Your task to perform on an android device: turn off location Image 0: 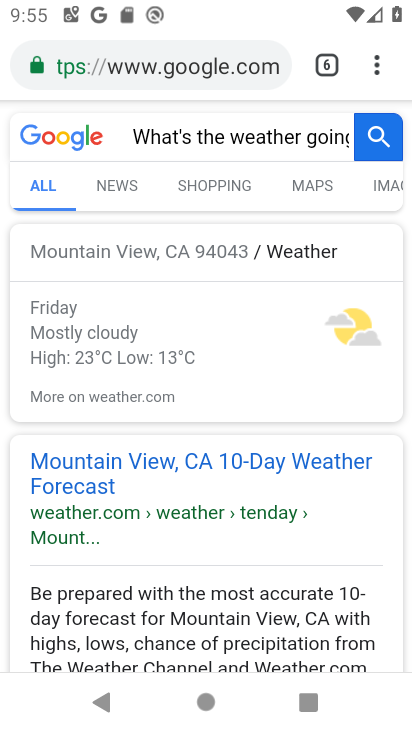
Step 0: press home button
Your task to perform on an android device: turn off location Image 1: 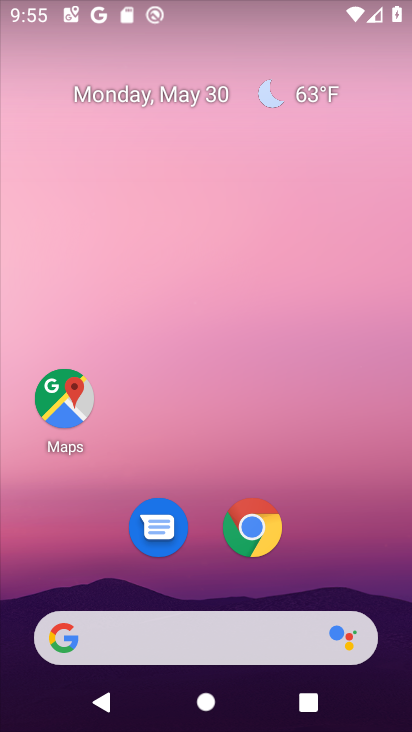
Step 1: drag from (332, 565) to (345, 300)
Your task to perform on an android device: turn off location Image 2: 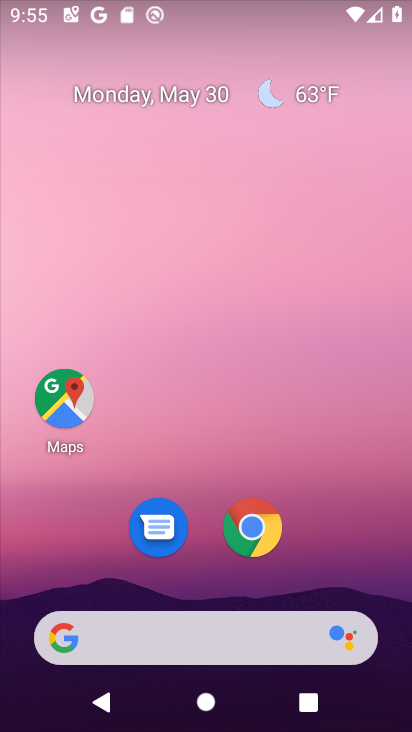
Step 2: drag from (232, 589) to (190, 287)
Your task to perform on an android device: turn off location Image 3: 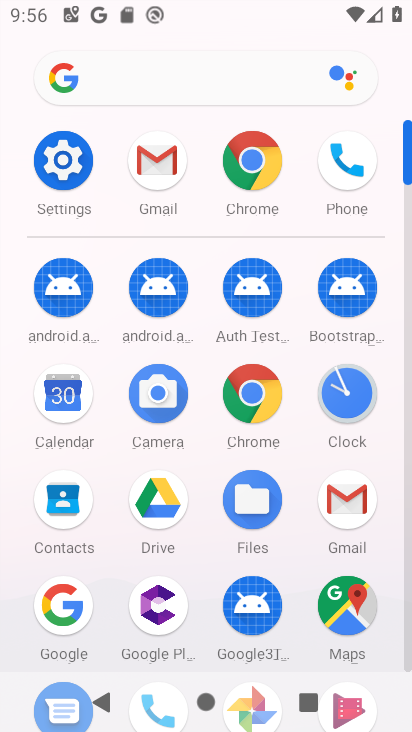
Step 3: click (73, 154)
Your task to perform on an android device: turn off location Image 4: 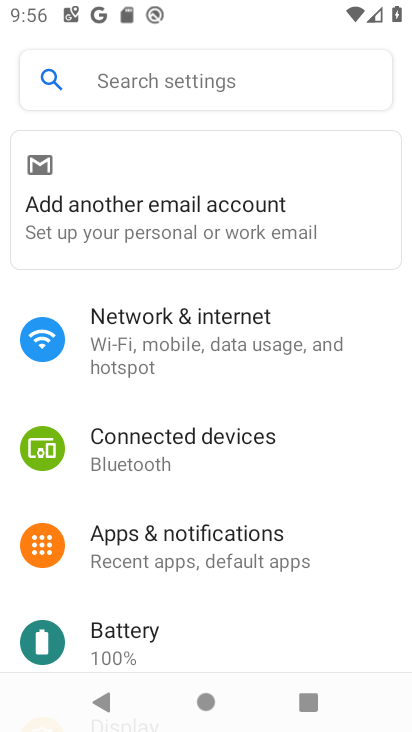
Step 4: drag from (173, 607) to (240, 312)
Your task to perform on an android device: turn off location Image 5: 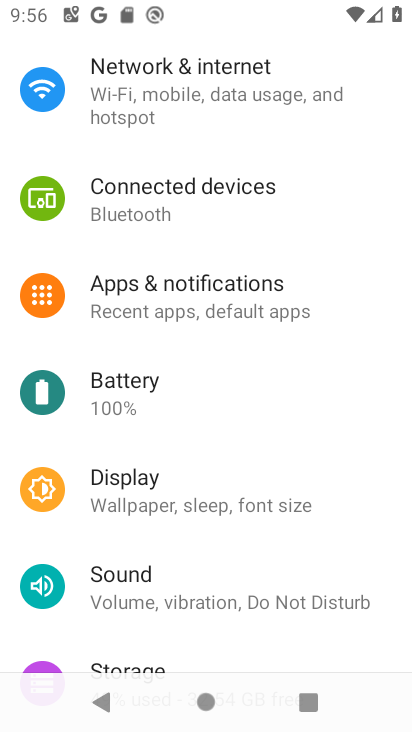
Step 5: drag from (187, 578) to (250, 249)
Your task to perform on an android device: turn off location Image 6: 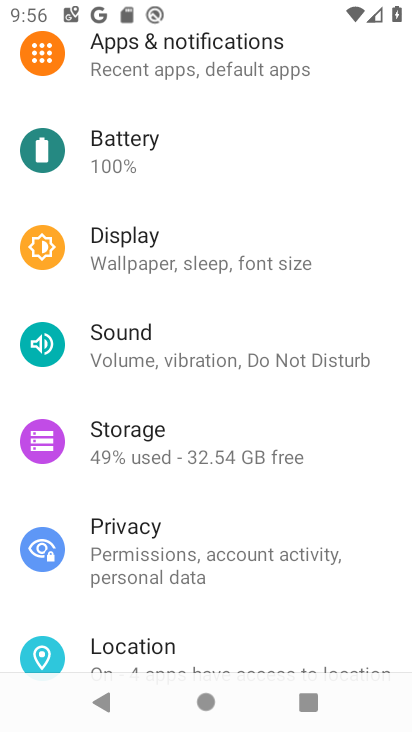
Step 6: drag from (176, 545) to (178, 285)
Your task to perform on an android device: turn off location Image 7: 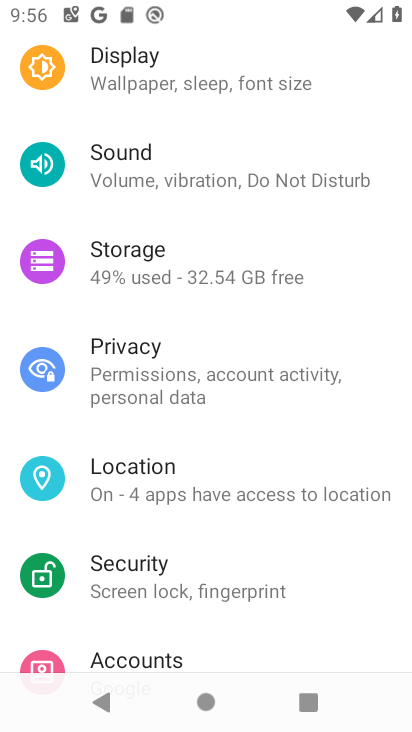
Step 7: click (154, 471)
Your task to perform on an android device: turn off location Image 8: 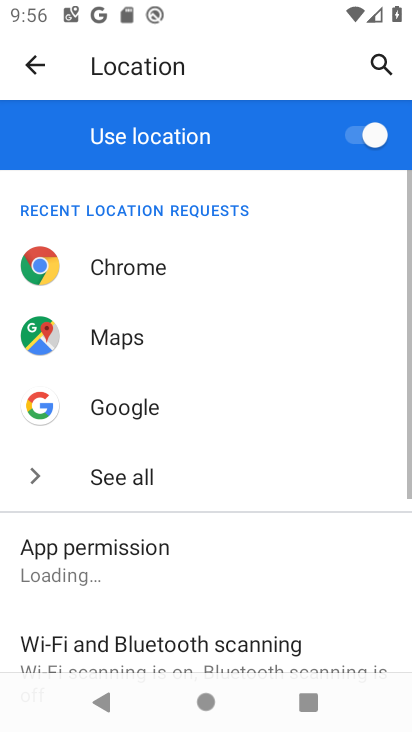
Step 8: click (367, 121)
Your task to perform on an android device: turn off location Image 9: 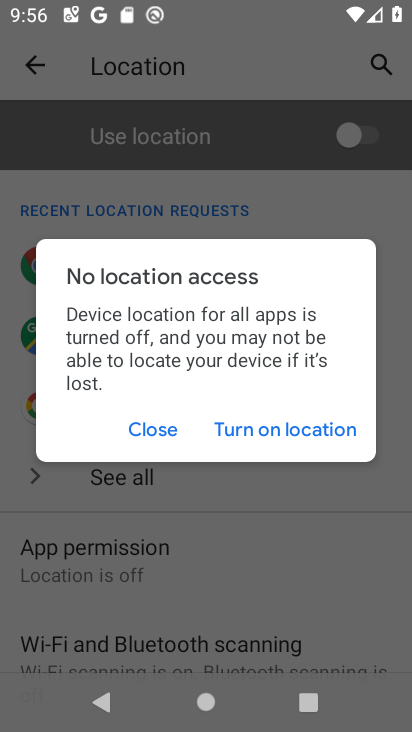
Step 9: click (161, 426)
Your task to perform on an android device: turn off location Image 10: 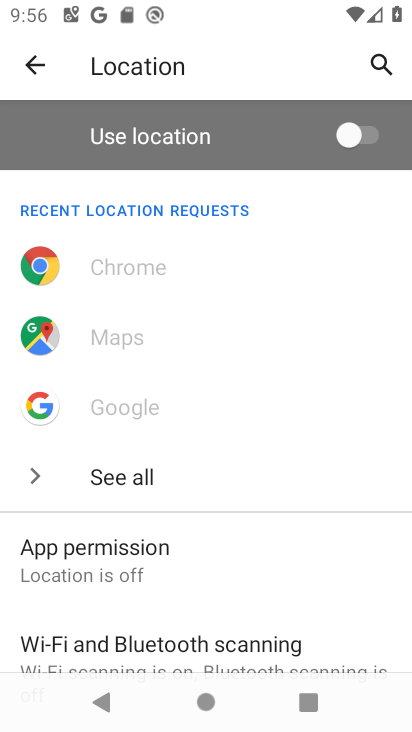
Step 10: task complete